Your task to perform on an android device: turn on data saver in the chrome app Image 0: 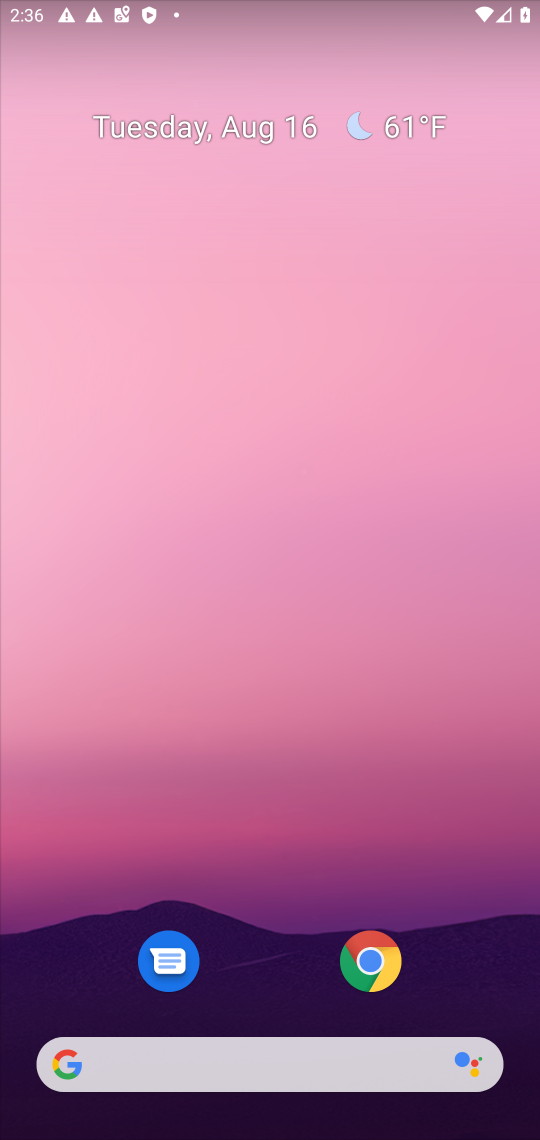
Step 0: drag from (492, 981) to (292, 132)
Your task to perform on an android device: turn on data saver in the chrome app Image 1: 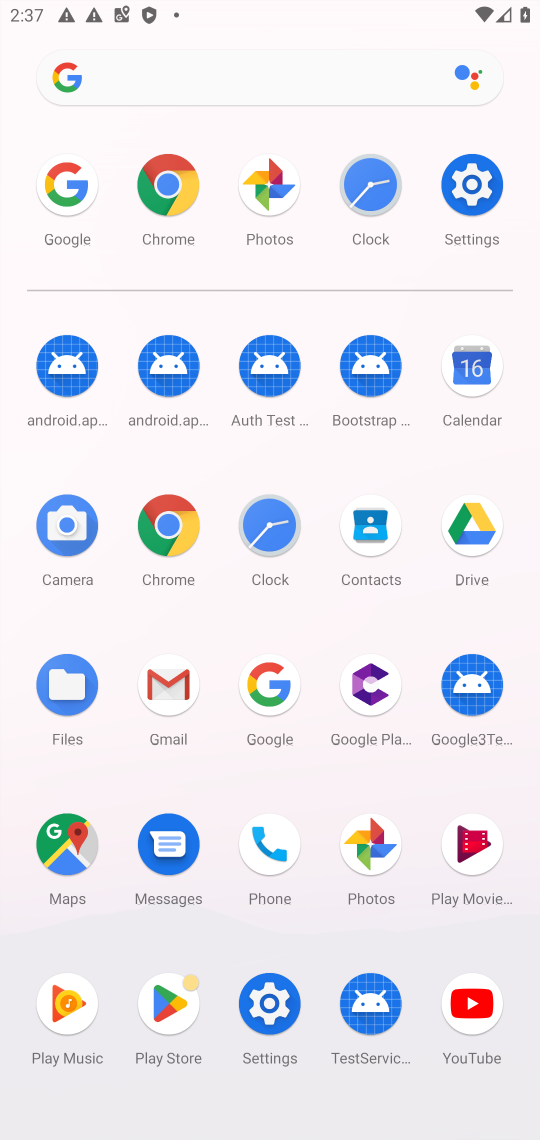
Step 1: click (169, 516)
Your task to perform on an android device: turn on data saver in the chrome app Image 2: 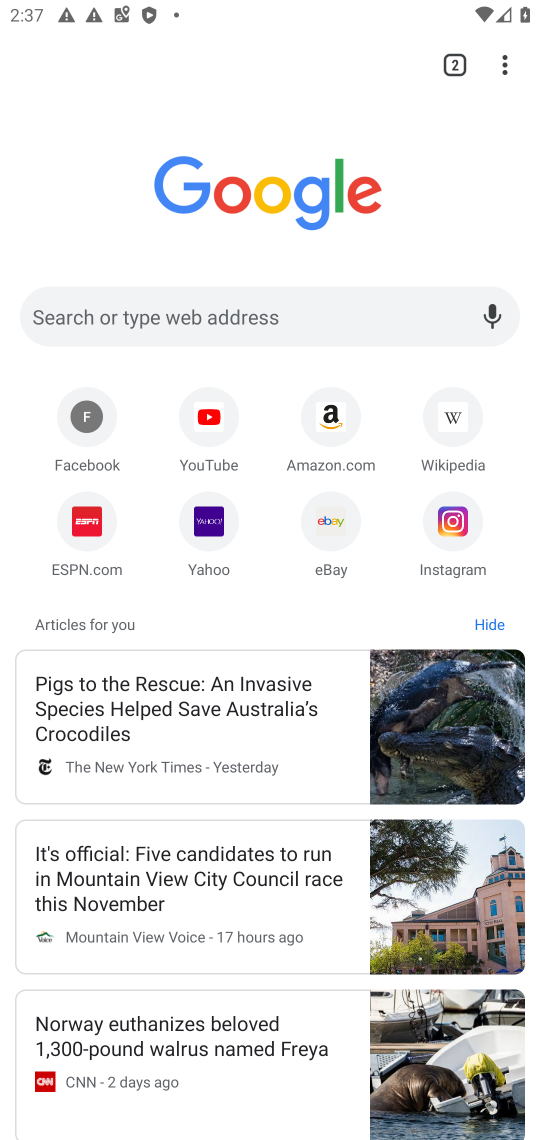
Step 2: click (504, 63)
Your task to perform on an android device: turn on data saver in the chrome app Image 3: 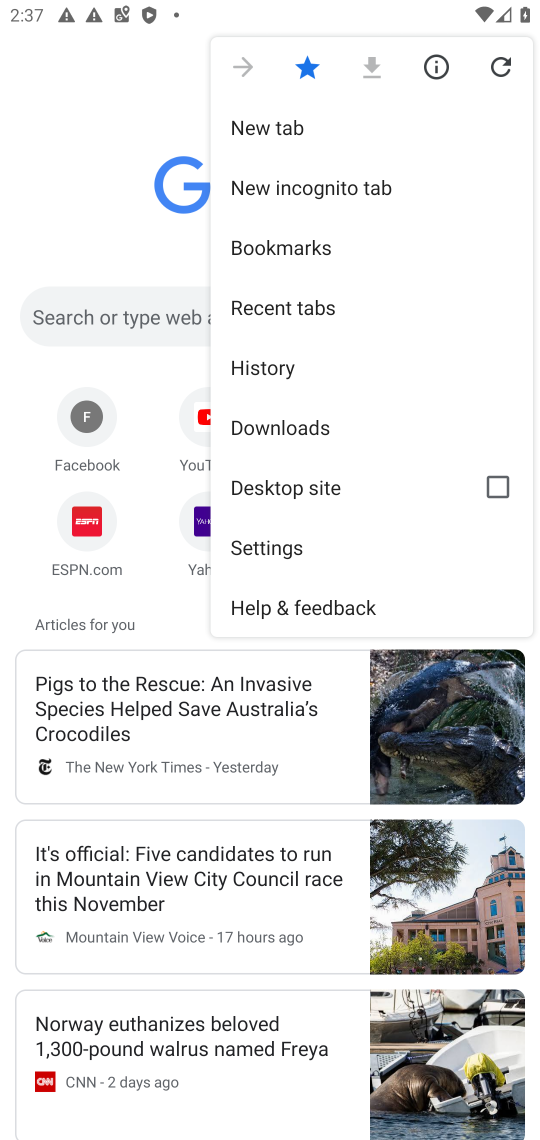
Step 3: click (305, 539)
Your task to perform on an android device: turn on data saver in the chrome app Image 4: 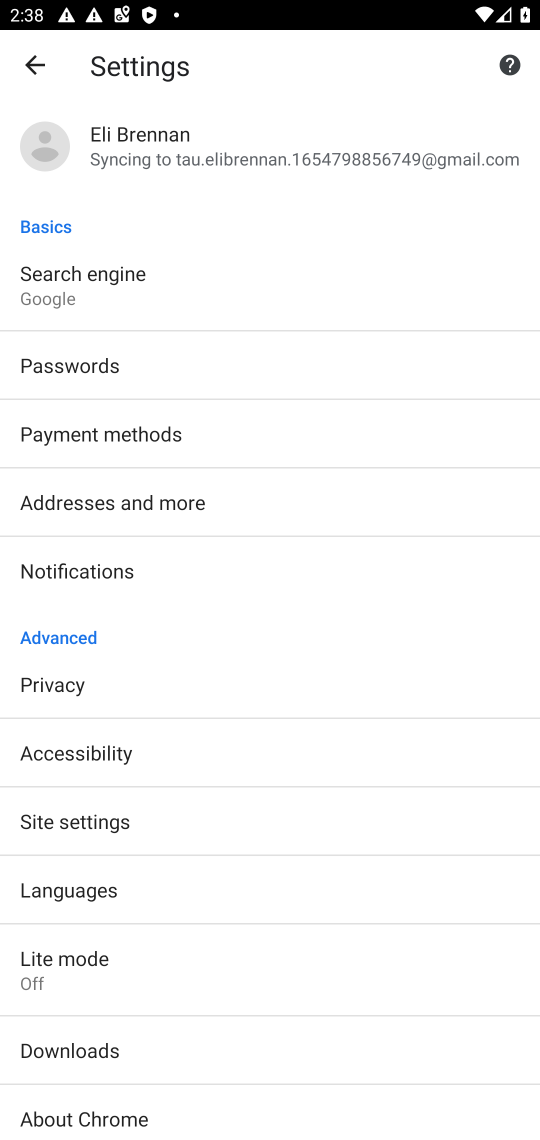
Step 4: click (174, 993)
Your task to perform on an android device: turn on data saver in the chrome app Image 5: 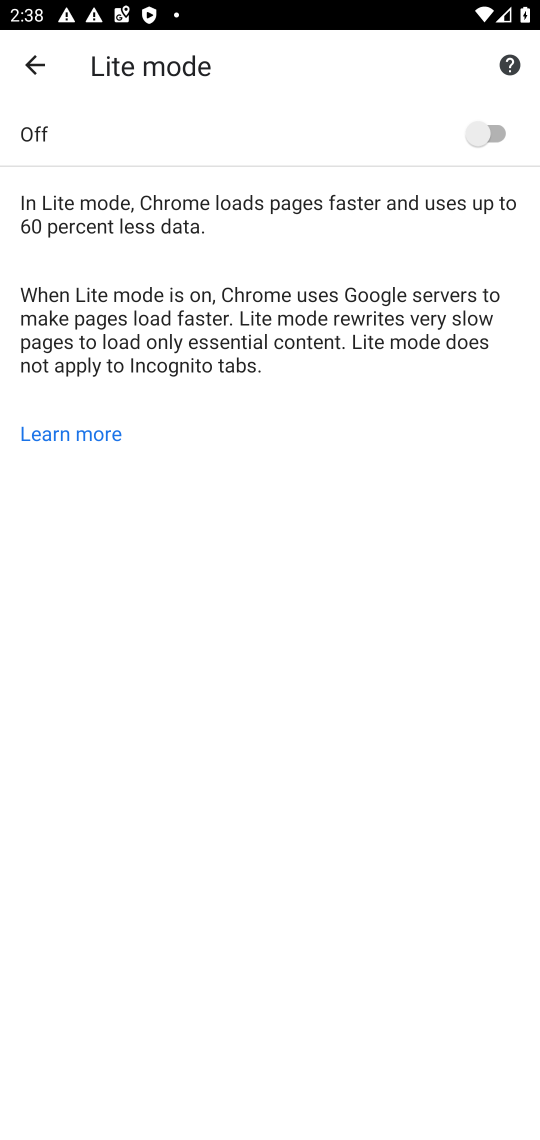
Step 5: click (499, 143)
Your task to perform on an android device: turn on data saver in the chrome app Image 6: 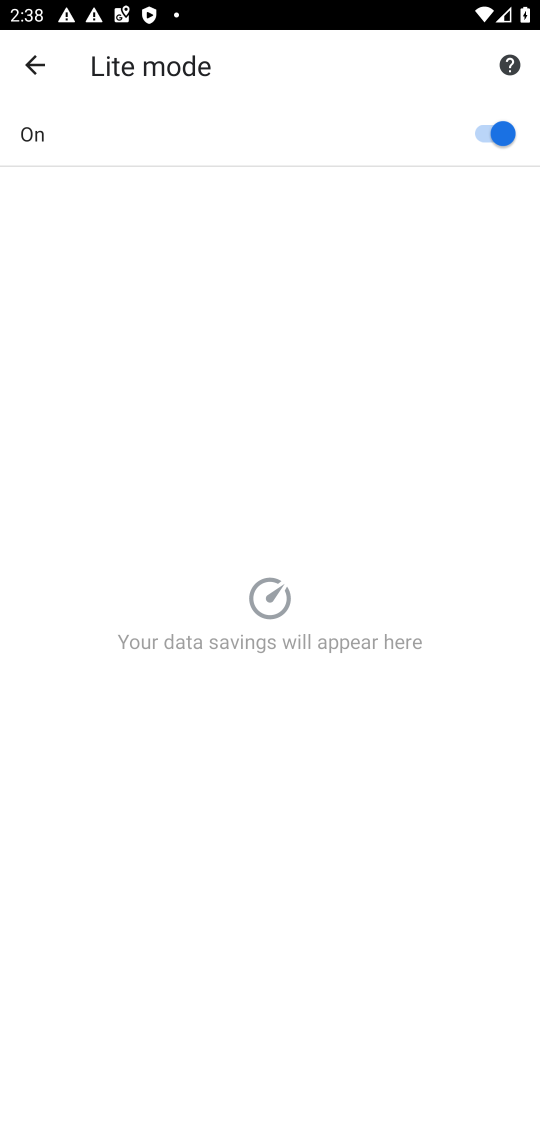
Step 6: task complete